Your task to perform on an android device: stop showing notifications on the lock screen Image 0: 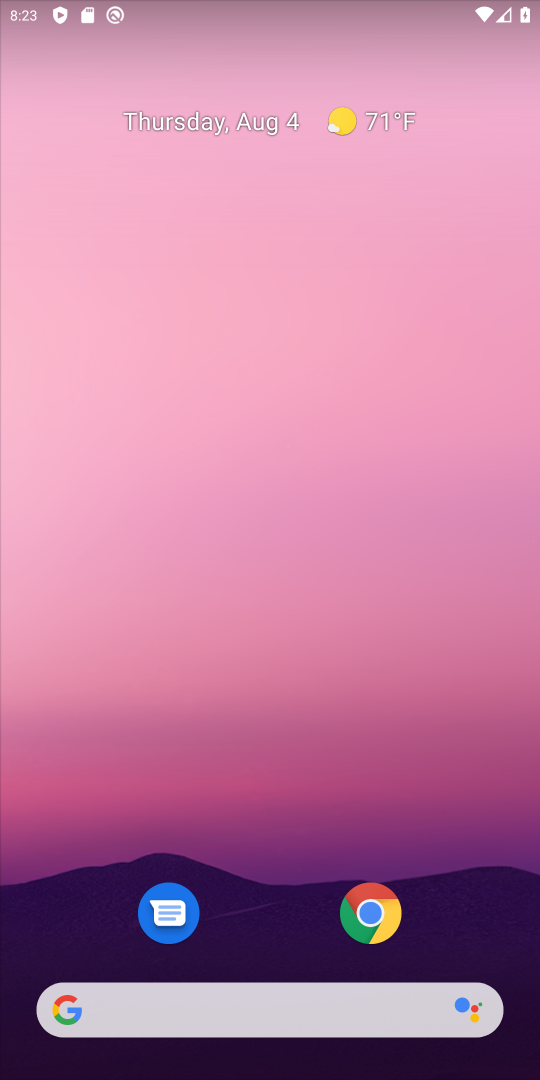
Step 0: drag from (245, 902) to (223, 219)
Your task to perform on an android device: stop showing notifications on the lock screen Image 1: 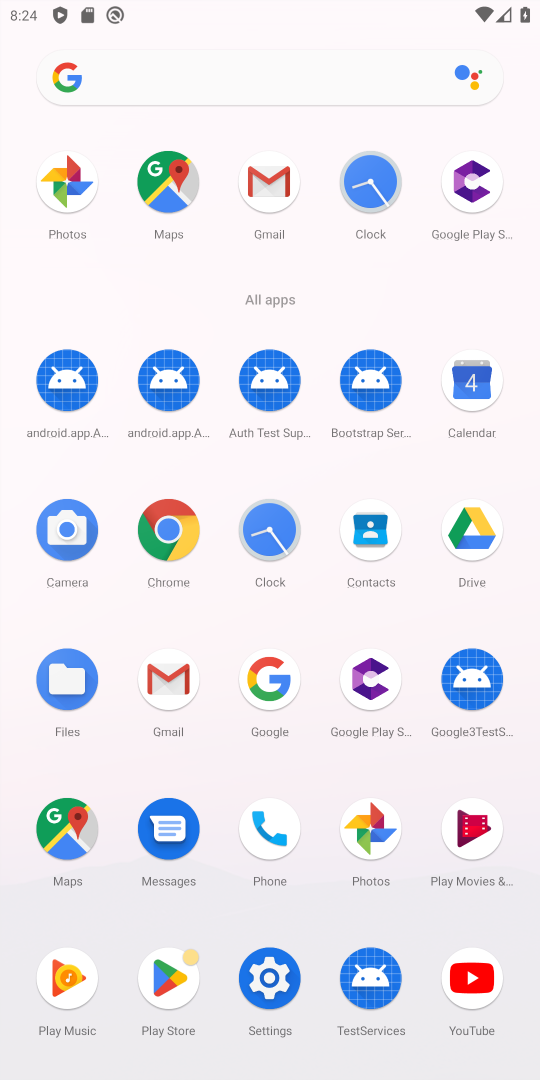
Step 1: drag from (344, 687) to (369, 296)
Your task to perform on an android device: stop showing notifications on the lock screen Image 2: 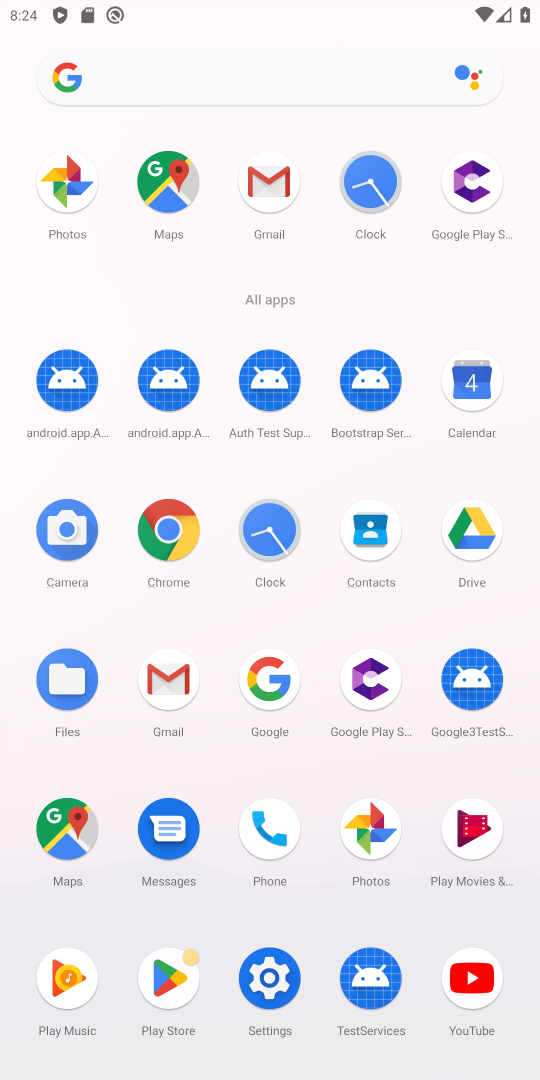
Step 2: click (263, 979)
Your task to perform on an android device: stop showing notifications on the lock screen Image 3: 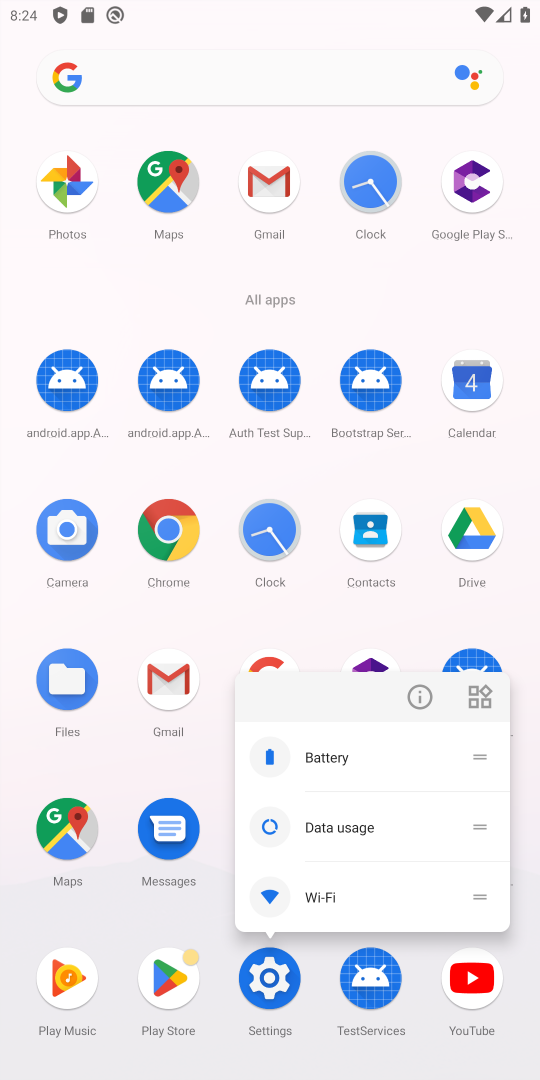
Step 3: click (427, 693)
Your task to perform on an android device: stop showing notifications on the lock screen Image 4: 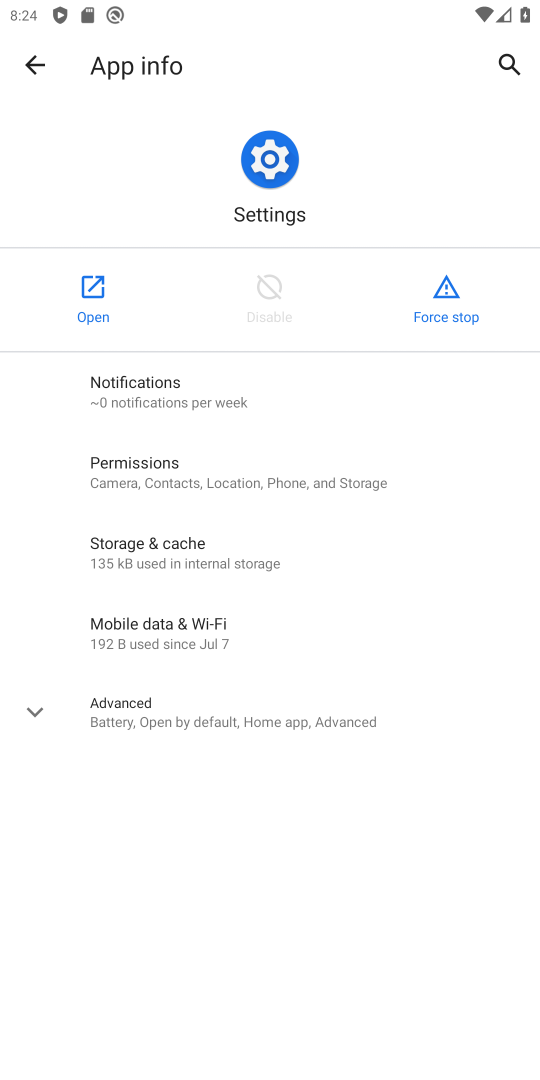
Step 4: click (96, 305)
Your task to perform on an android device: stop showing notifications on the lock screen Image 5: 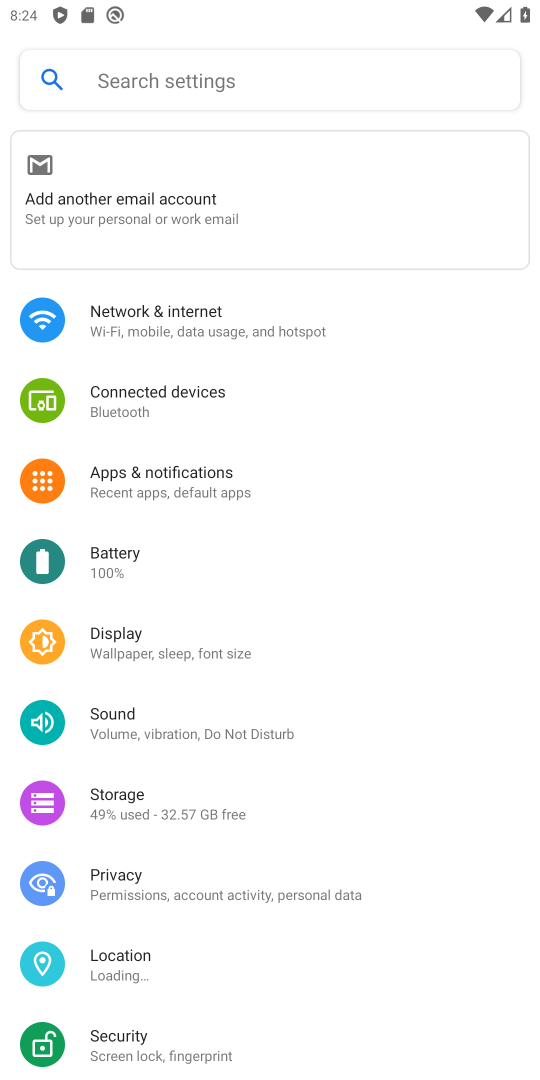
Step 5: click (202, 482)
Your task to perform on an android device: stop showing notifications on the lock screen Image 6: 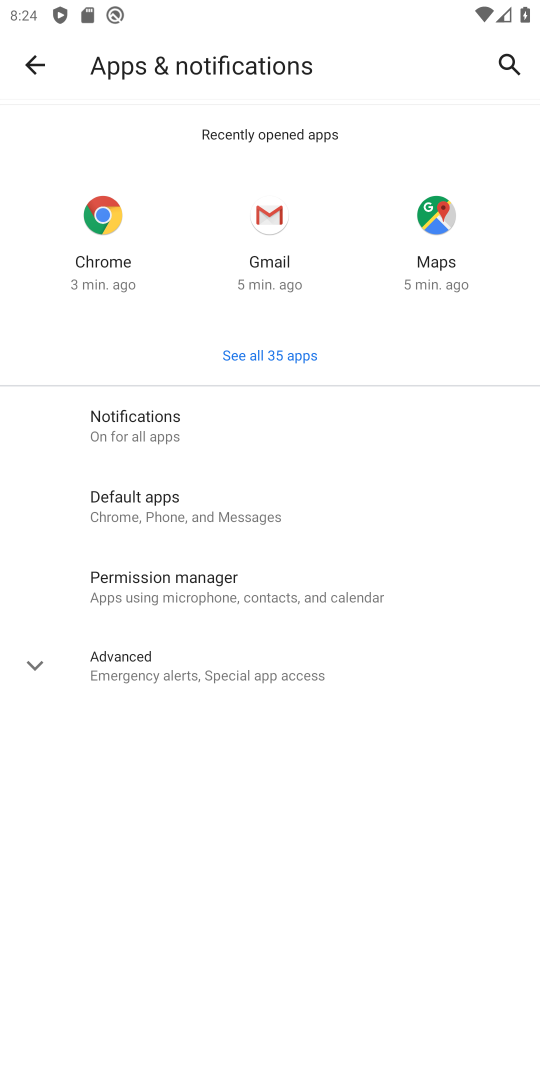
Step 6: click (164, 421)
Your task to perform on an android device: stop showing notifications on the lock screen Image 7: 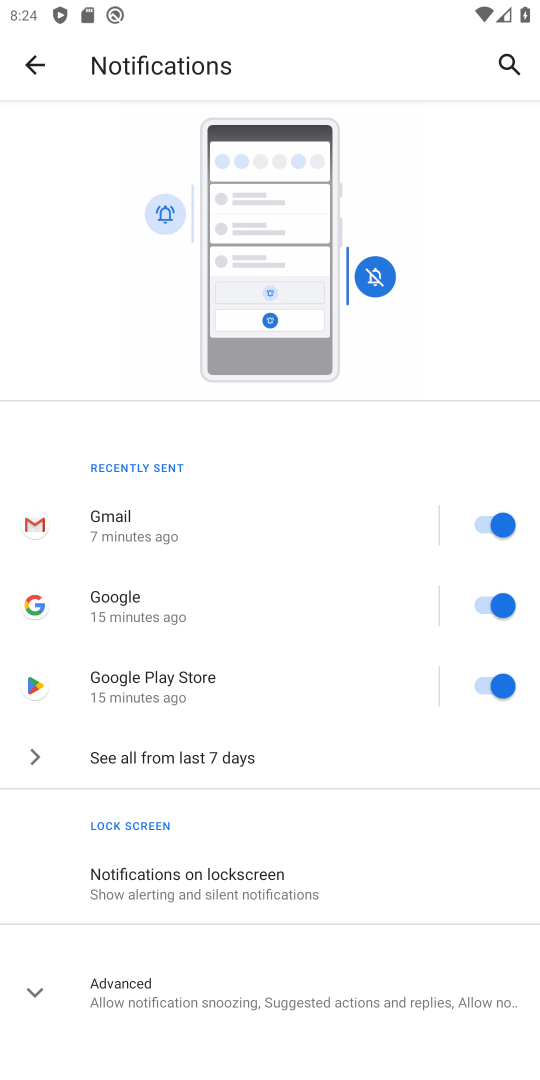
Step 7: click (255, 898)
Your task to perform on an android device: stop showing notifications on the lock screen Image 8: 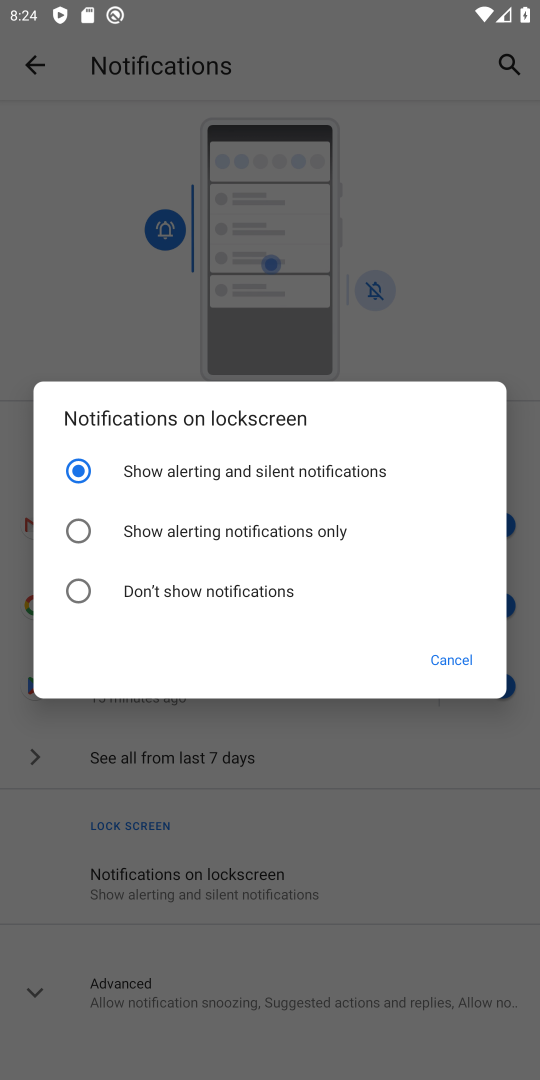
Step 8: click (120, 587)
Your task to perform on an android device: stop showing notifications on the lock screen Image 9: 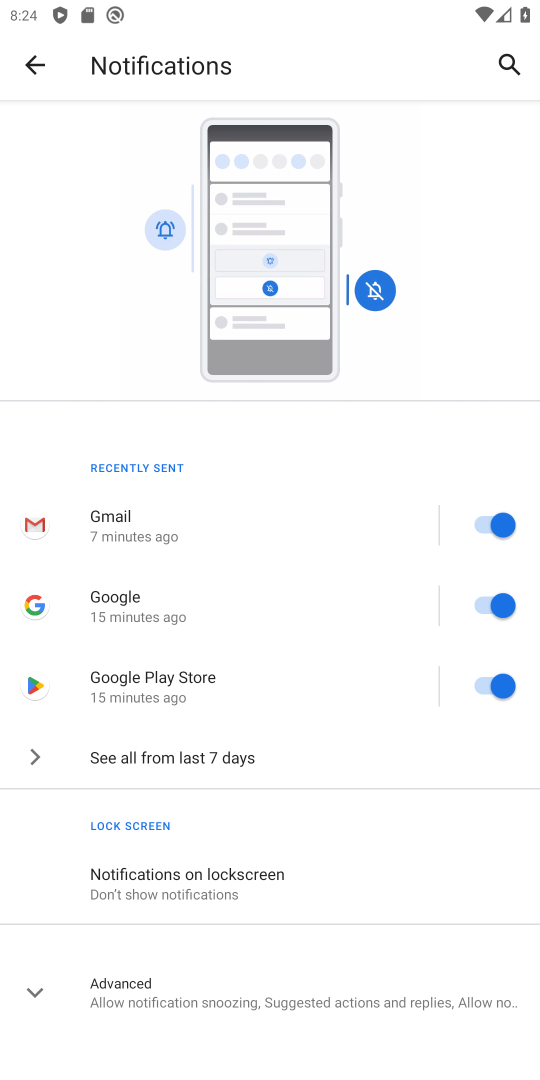
Step 9: task complete